Your task to perform on an android device: add a contact in the contacts app Image 0: 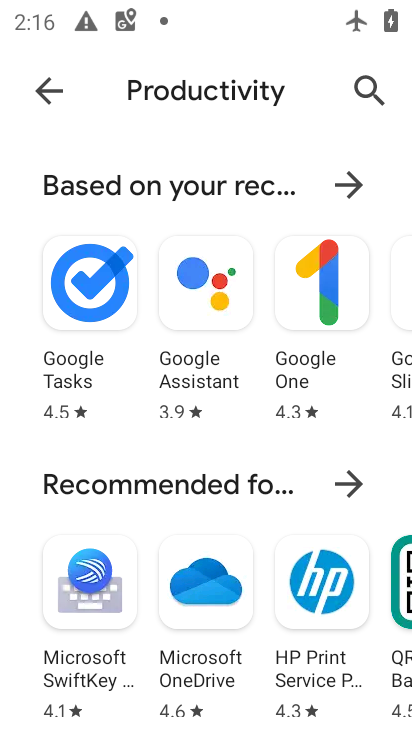
Step 0: press home button
Your task to perform on an android device: add a contact in the contacts app Image 1: 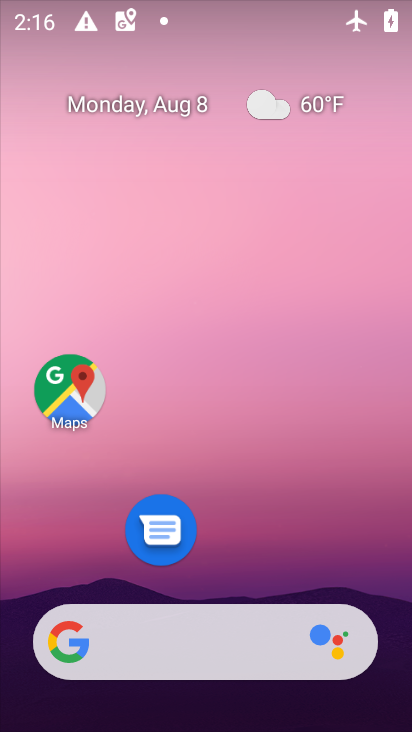
Step 1: drag from (217, 375) to (215, 338)
Your task to perform on an android device: add a contact in the contacts app Image 2: 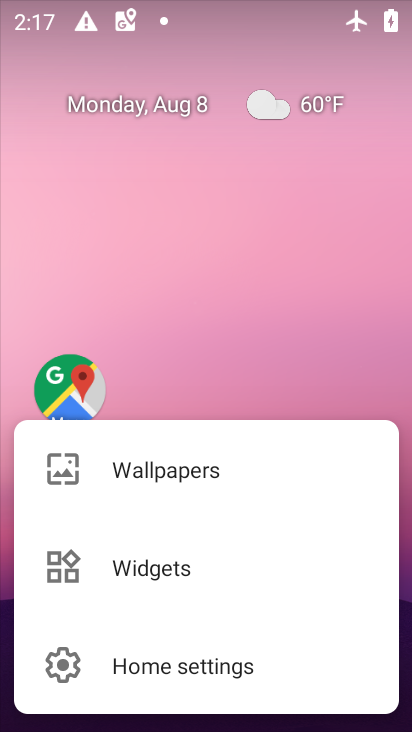
Step 2: click (358, 339)
Your task to perform on an android device: add a contact in the contacts app Image 3: 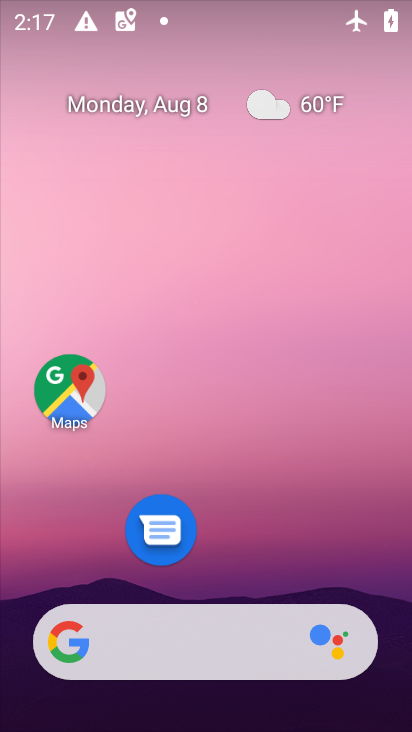
Step 3: drag from (238, 372) to (210, 63)
Your task to perform on an android device: add a contact in the contacts app Image 4: 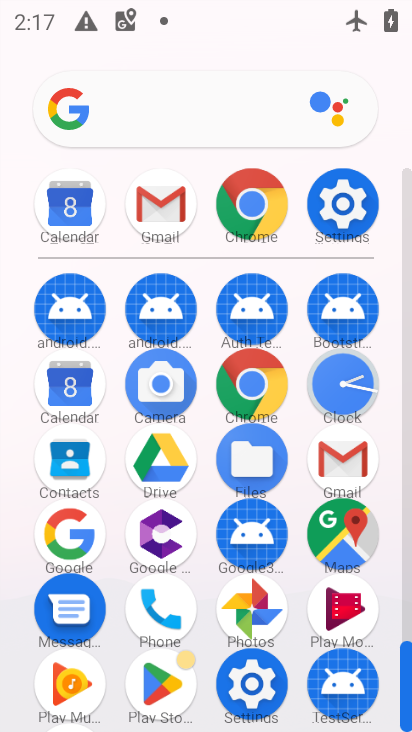
Step 4: click (68, 458)
Your task to perform on an android device: add a contact in the contacts app Image 5: 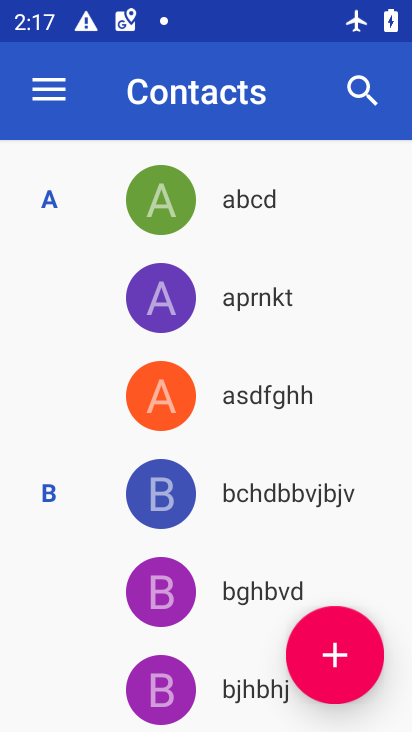
Step 5: click (339, 659)
Your task to perform on an android device: add a contact in the contacts app Image 6: 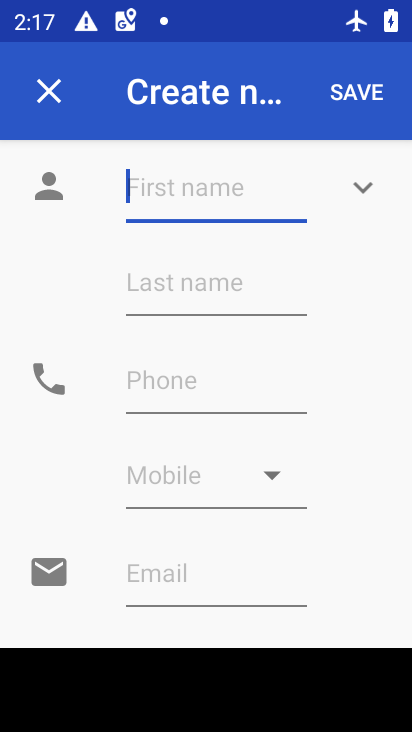
Step 6: type "uiuiu"
Your task to perform on an android device: add a contact in the contacts app Image 7: 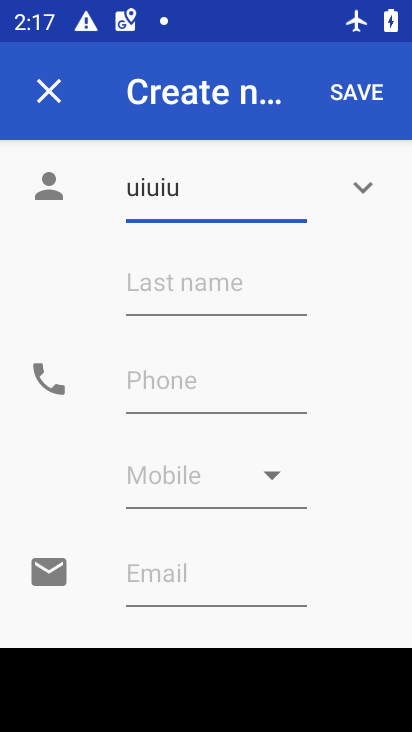
Step 7: click (228, 370)
Your task to perform on an android device: add a contact in the contacts app Image 8: 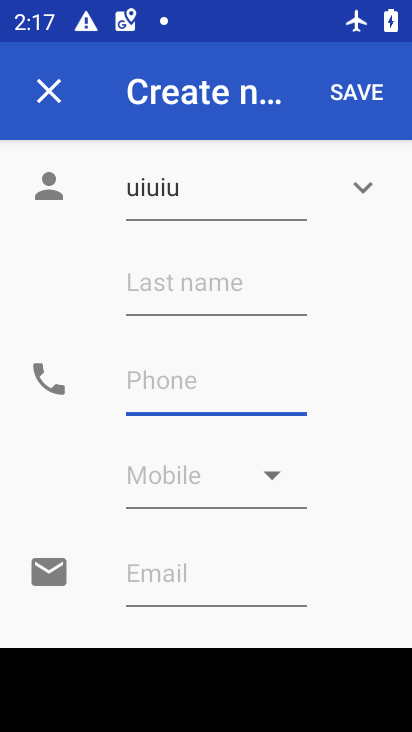
Step 8: type "345"
Your task to perform on an android device: add a contact in the contacts app Image 9: 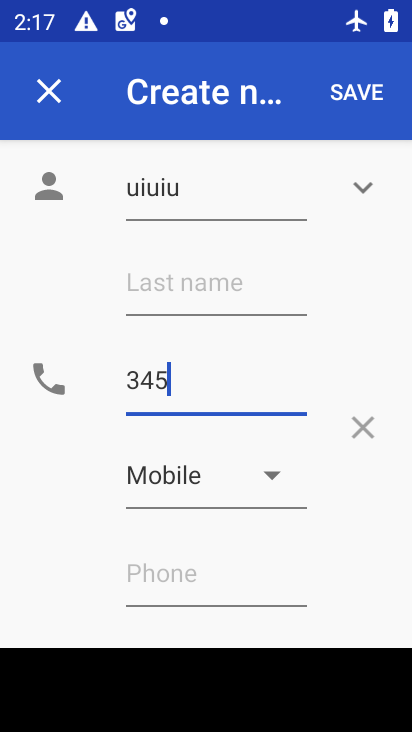
Step 9: click (357, 85)
Your task to perform on an android device: add a contact in the contacts app Image 10: 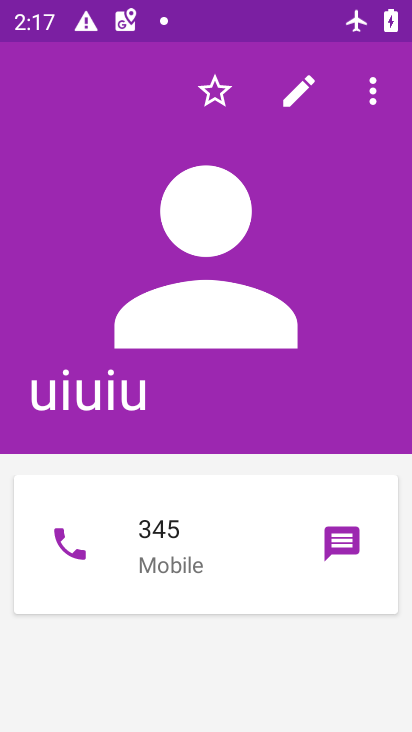
Step 10: task complete